Your task to perform on an android device: Open settings on Google Maps Image 0: 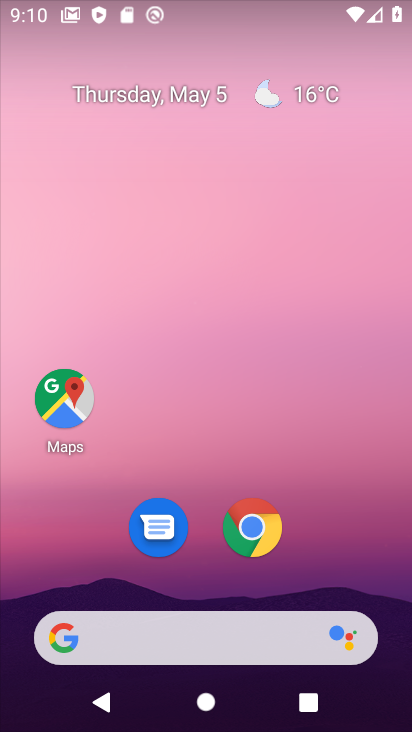
Step 0: press home button
Your task to perform on an android device: Open settings on Google Maps Image 1: 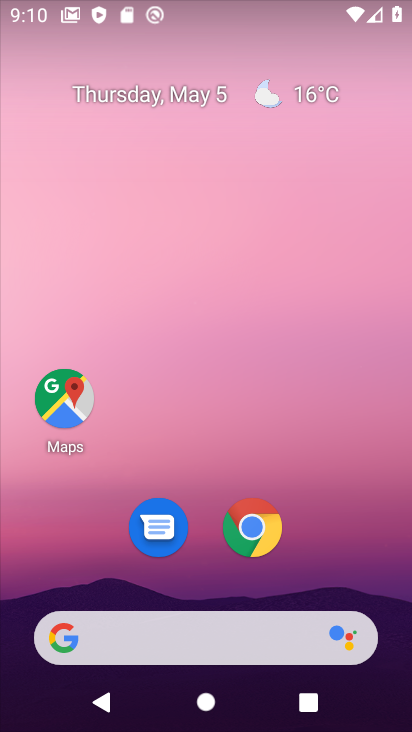
Step 1: drag from (215, 585) to (247, 58)
Your task to perform on an android device: Open settings on Google Maps Image 2: 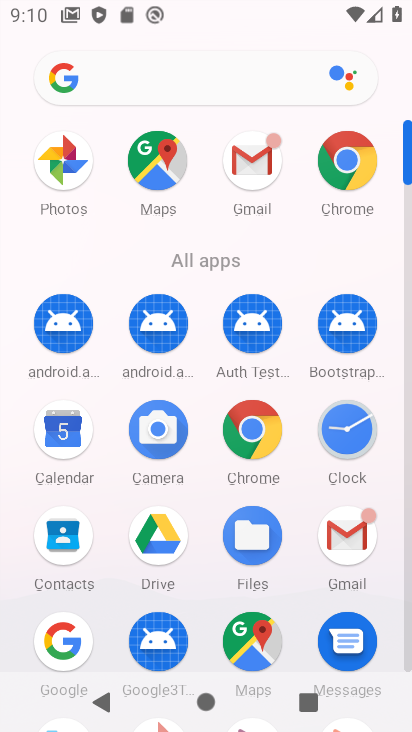
Step 2: click (254, 635)
Your task to perform on an android device: Open settings on Google Maps Image 3: 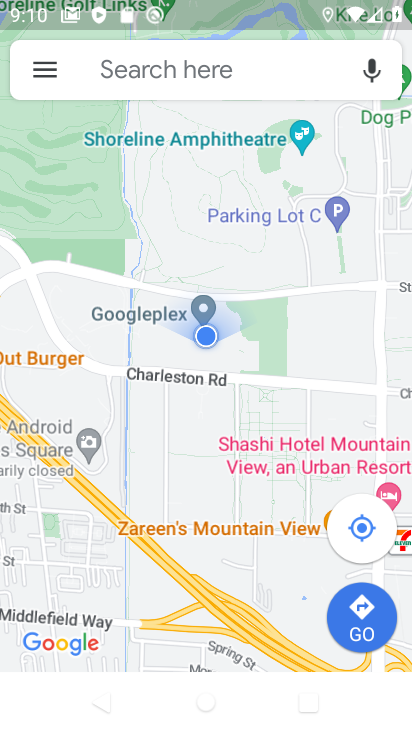
Step 3: press home button
Your task to perform on an android device: Open settings on Google Maps Image 4: 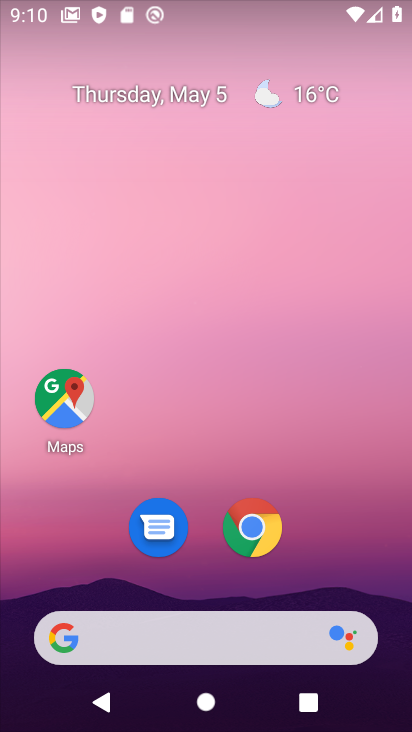
Step 4: click (59, 399)
Your task to perform on an android device: Open settings on Google Maps Image 5: 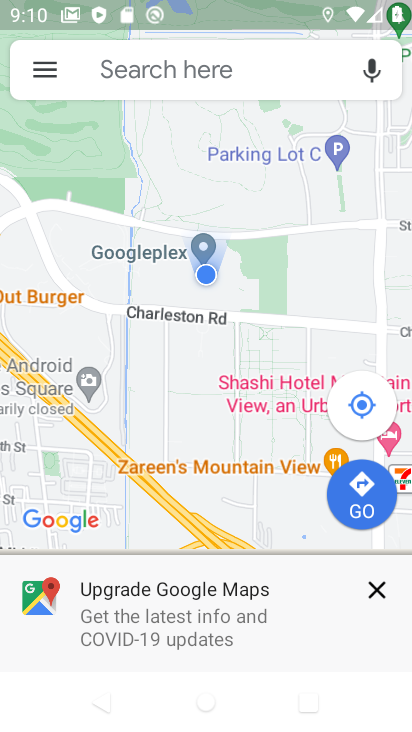
Step 5: click (38, 64)
Your task to perform on an android device: Open settings on Google Maps Image 6: 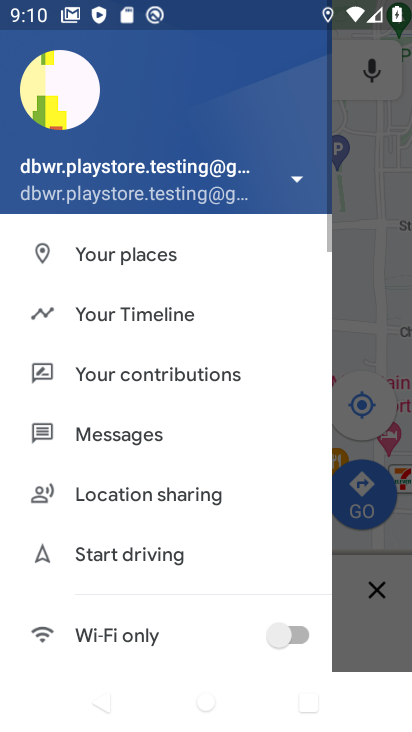
Step 6: drag from (149, 590) to (168, 156)
Your task to perform on an android device: Open settings on Google Maps Image 7: 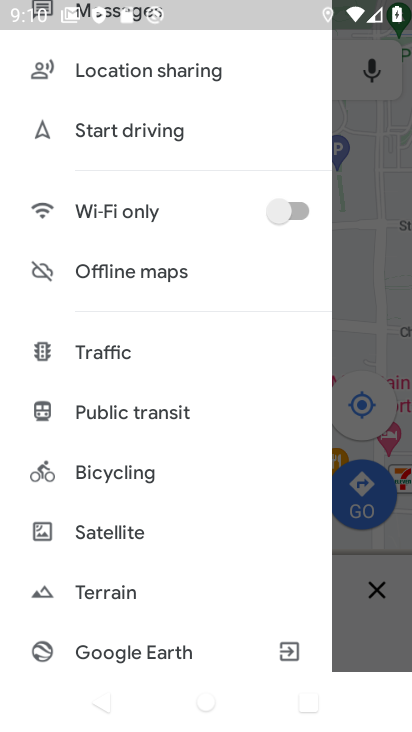
Step 7: drag from (153, 616) to (186, 142)
Your task to perform on an android device: Open settings on Google Maps Image 8: 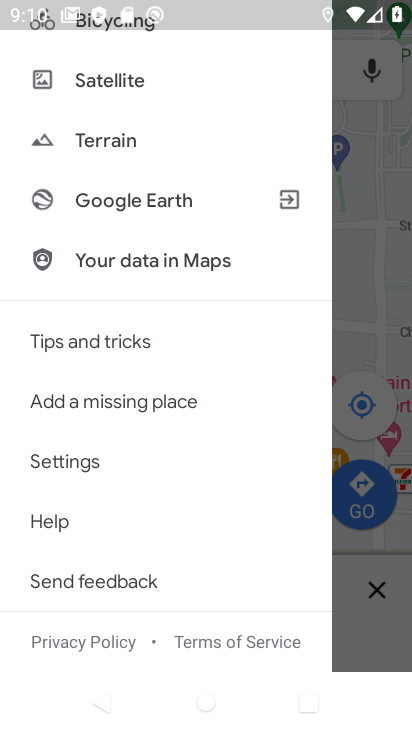
Step 8: click (103, 459)
Your task to perform on an android device: Open settings on Google Maps Image 9: 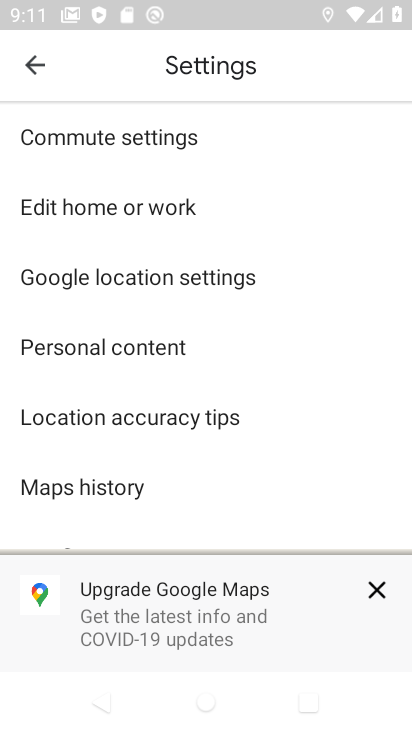
Step 9: drag from (232, 461) to (259, 203)
Your task to perform on an android device: Open settings on Google Maps Image 10: 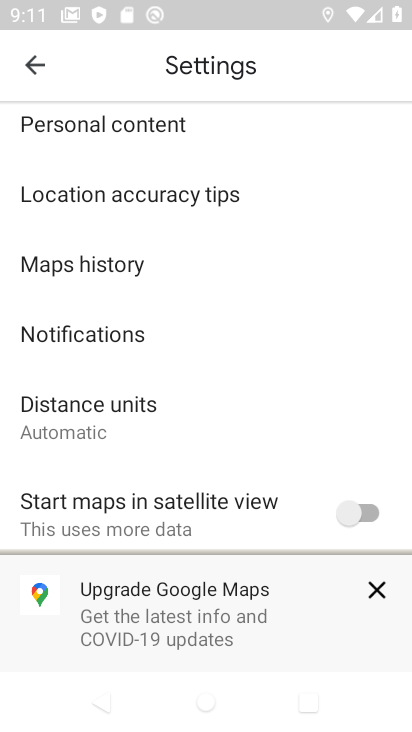
Step 10: drag from (202, 226) to (244, 544)
Your task to perform on an android device: Open settings on Google Maps Image 11: 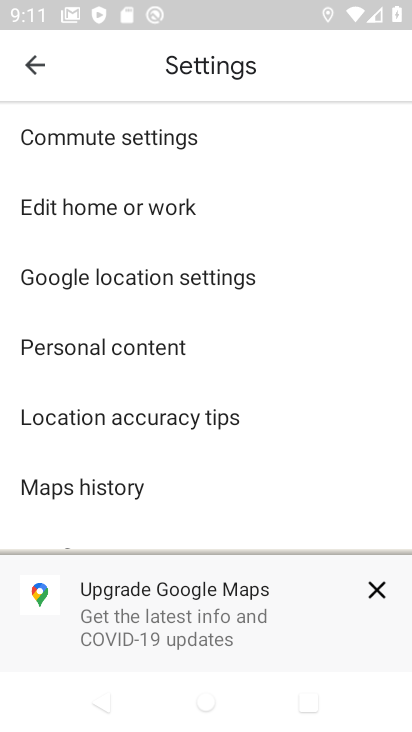
Step 11: click (262, 271)
Your task to perform on an android device: Open settings on Google Maps Image 12: 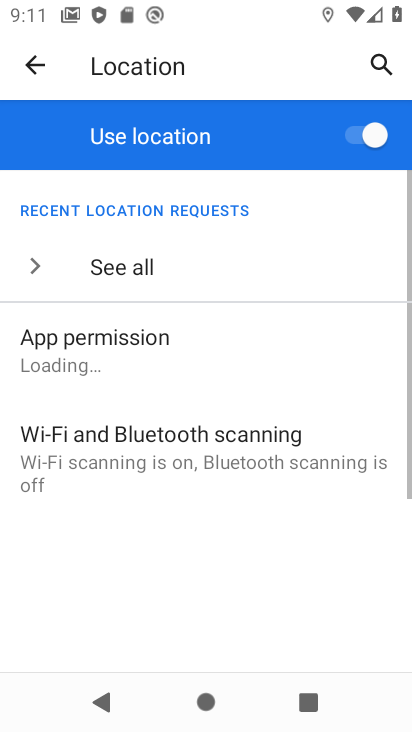
Step 12: task complete